Your task to perform on an android device: Go to ESPN.com Image 0: 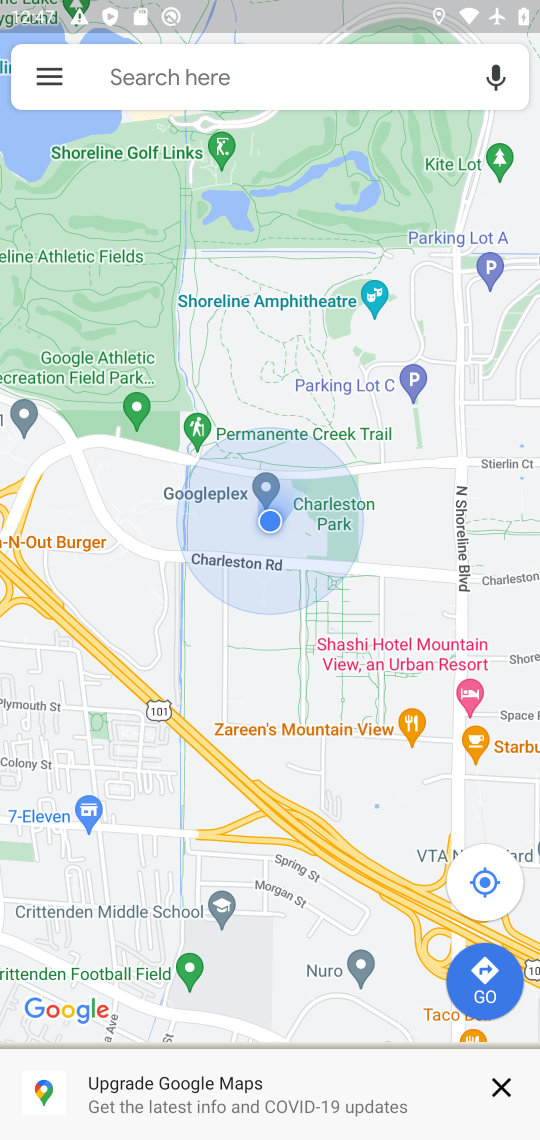
Step 0: press home button
Your task to perform on an android device: Go to ESPN.com Image 1: 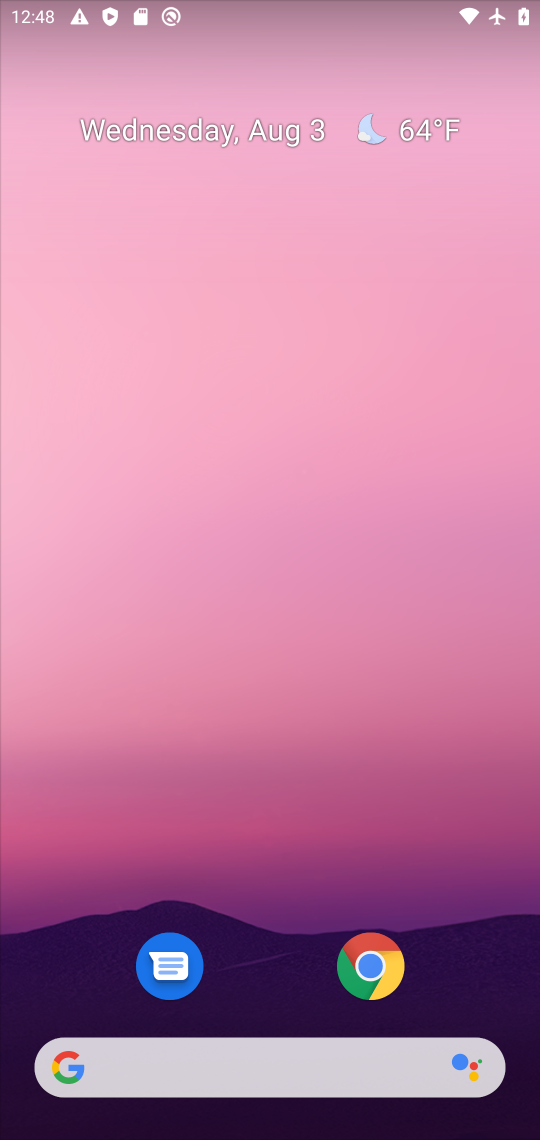
Step 1: click (375, 983)
Your task to perform on an android device: Go to ESPN.com Image 2: 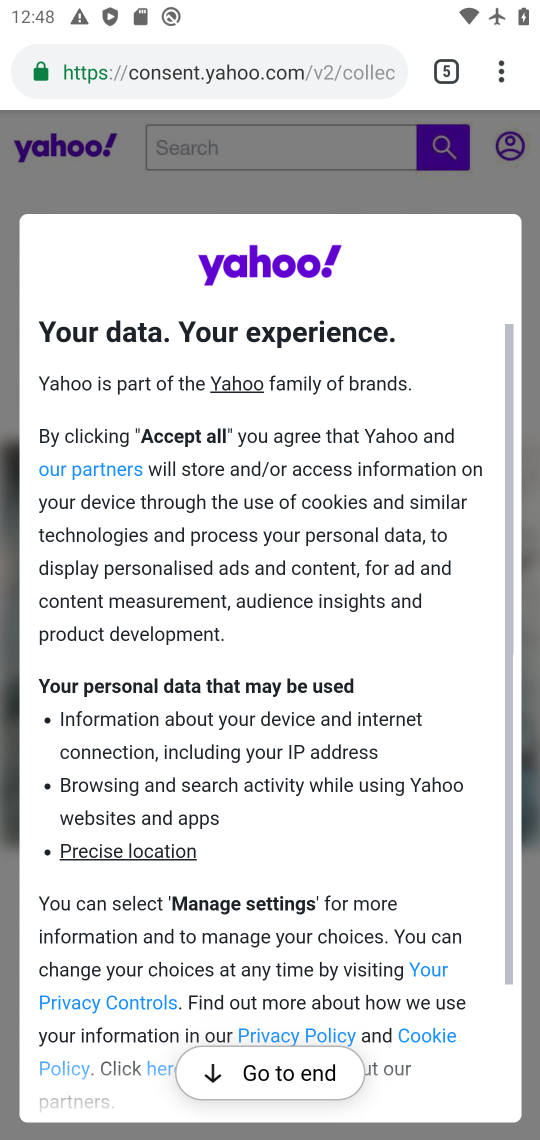
Step 2: click (431, 68)
Your task to perform on an android device: Go to ESPN.com Image 3: 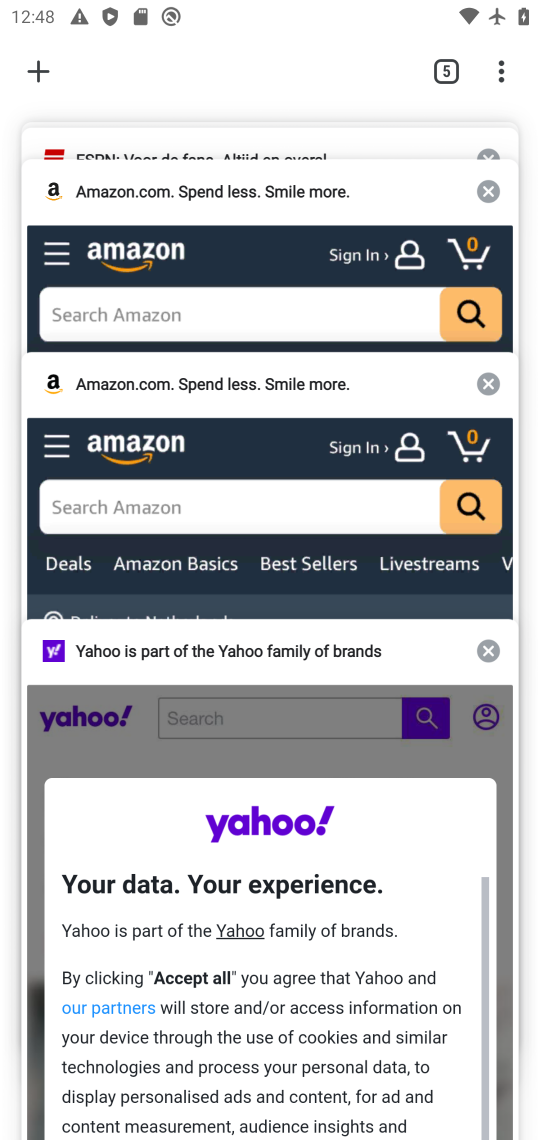
Step 3: click (53, 78)
Your task to perform on an android device: Go to ESPN.com Image 4: 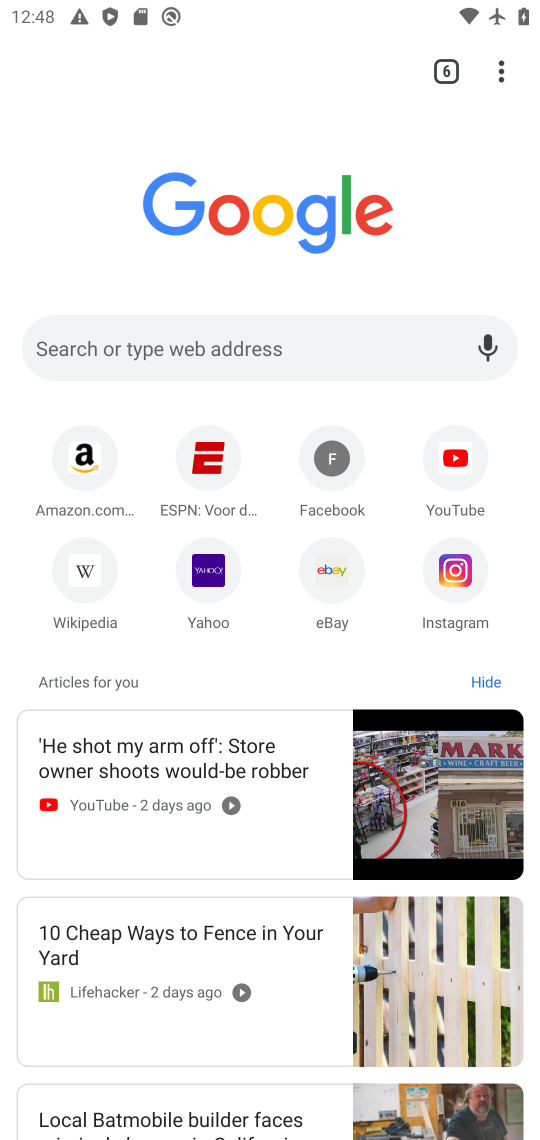
Step 4: click (157, 343)
Your task to perform on an android device: Go to ESPN.com Image 5: 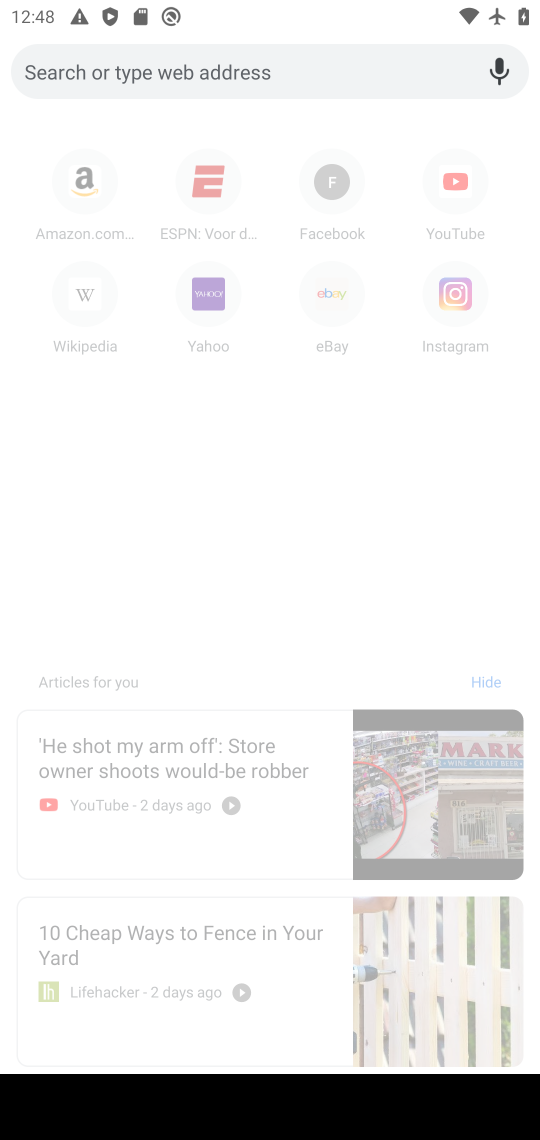
Step 5: type "ESPN.com"
Your task to perform on an android device: Go to ESPN.com Image 6: 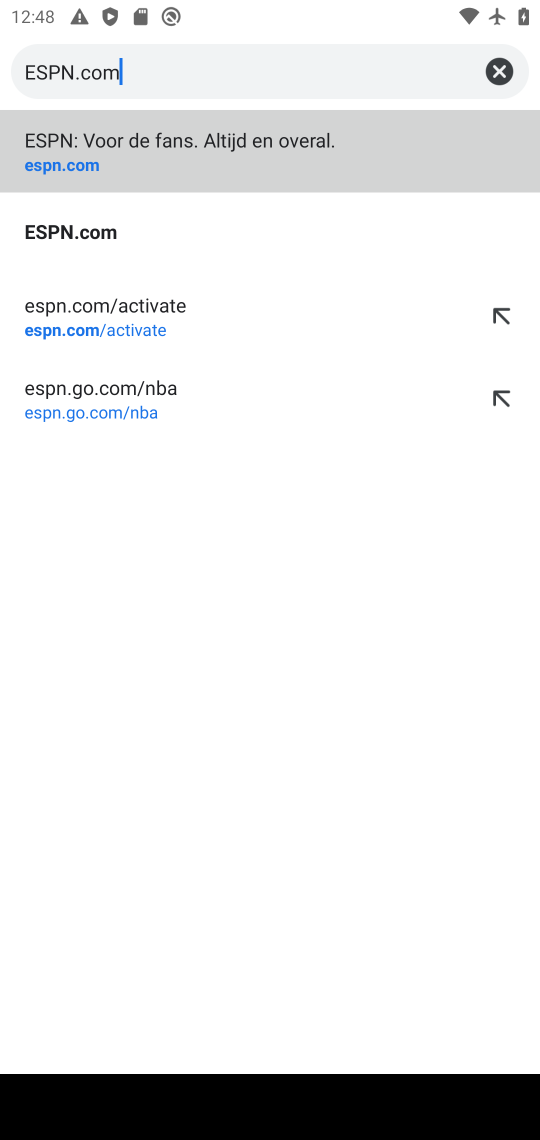
Step 6: type ""
Your task to perform on an android device: Go to ESPN.com Image 7: 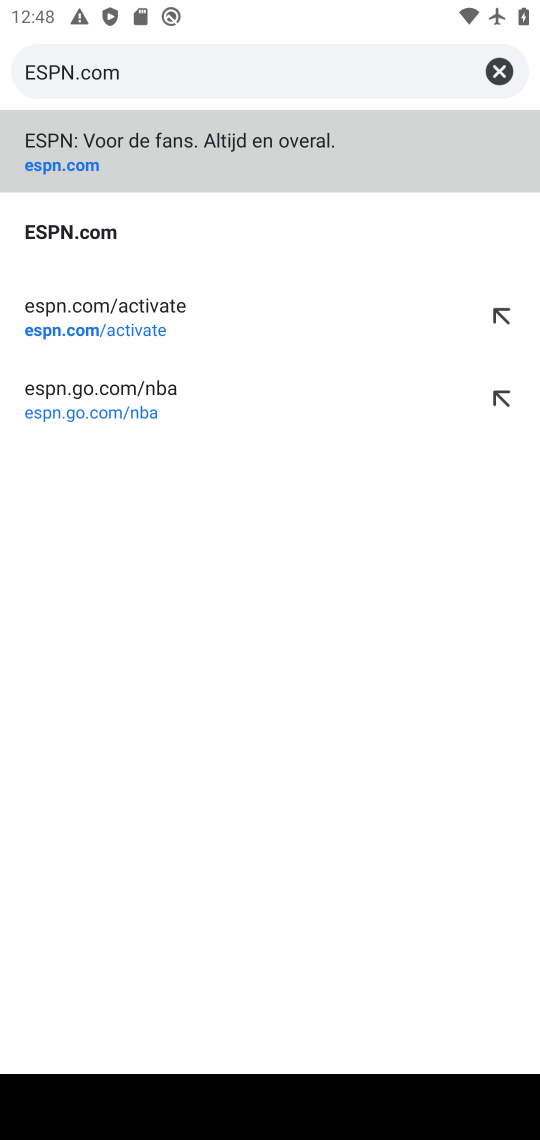
Step 7: click (168, 166)
Your task to perform on an android device: Go to ESPN.com Image 8: 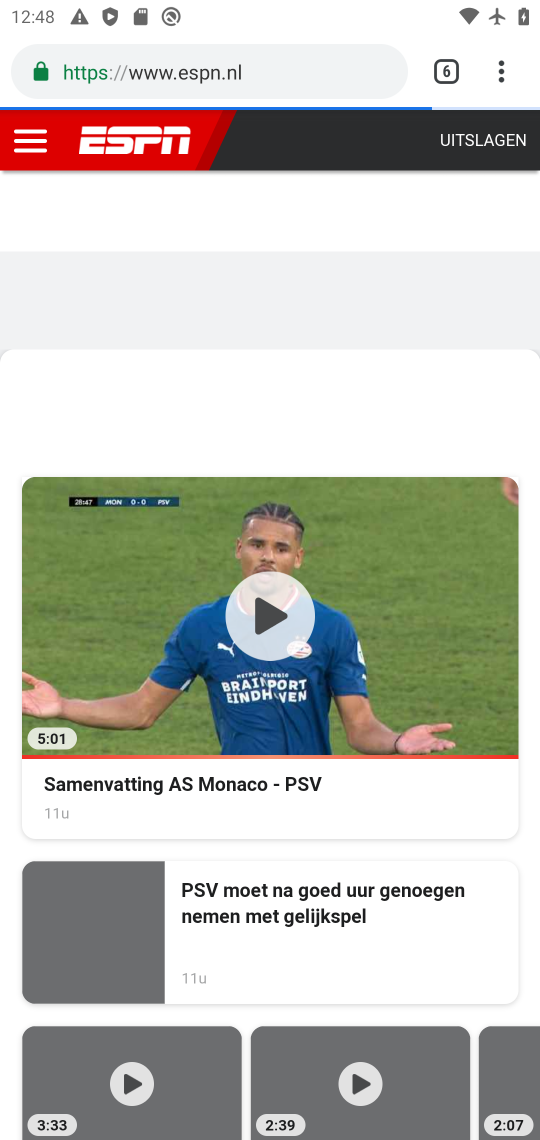
Step 8: task complete